Your task to perform on an android device: What's the weather going to be this weekend? Image 0: 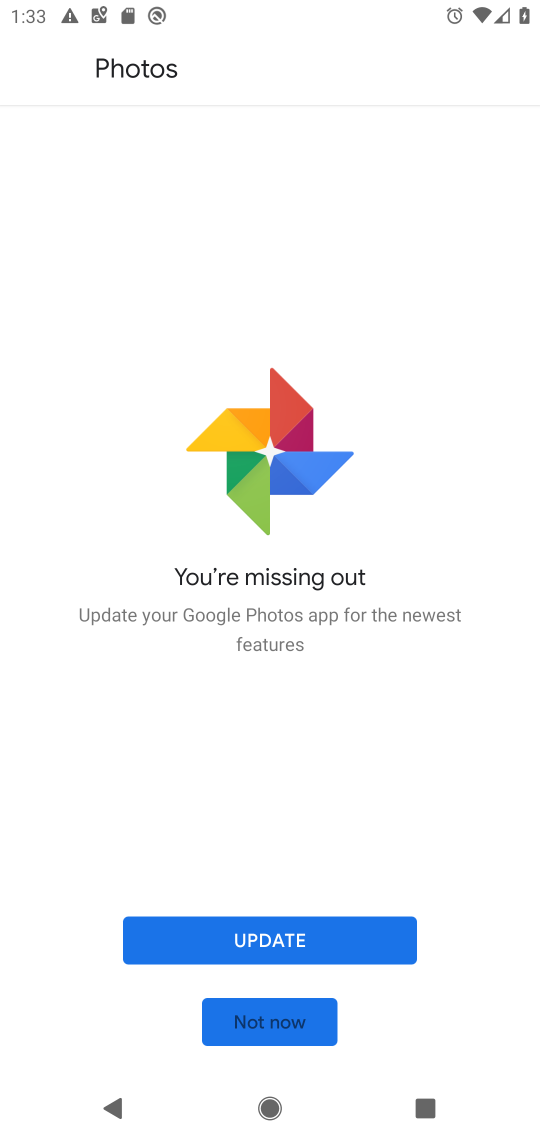
Step 0: press home button
Your task to perform on an android device: What's the weather going to be this weekend? Image 1: 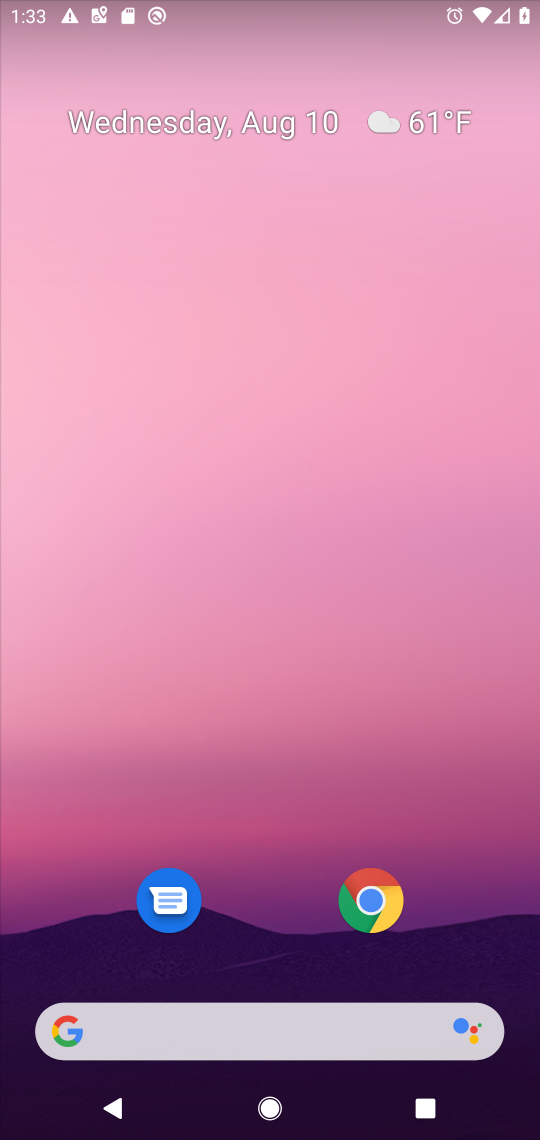
Step 1: drag from (279, 886) to (369, 11)
Your task to perform on an android device: What's the weather going to be this weekend? Image 2: 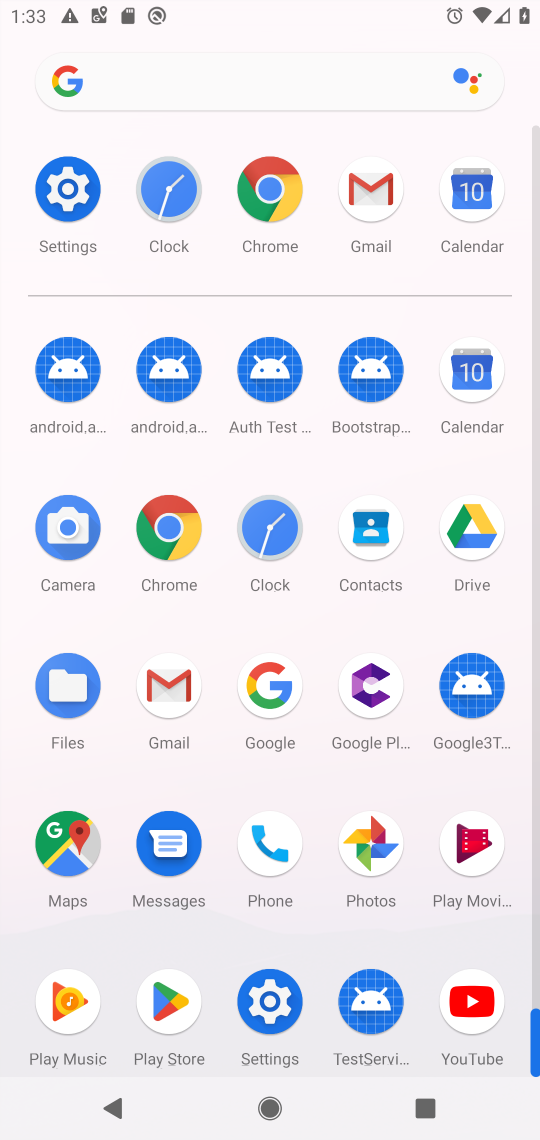
Step 2: click (476, 190)
Your task to perform on an android device: What's the weather going to be this weekend? Image 3: 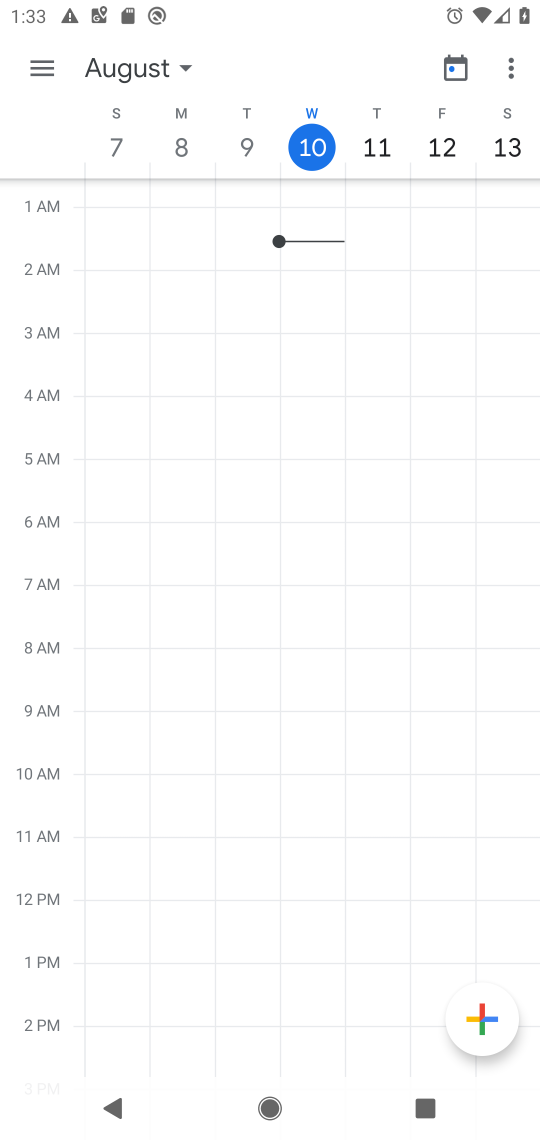
Step 3: press home button
Your task to perform on an android device: What's the weather going to be this weekend? Image 4: 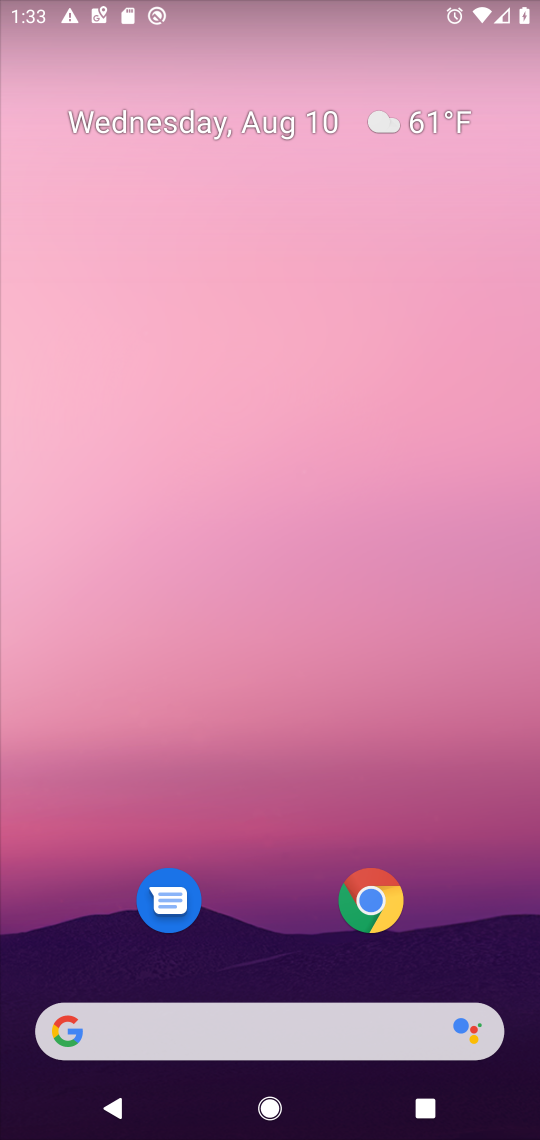
Step 4: click (247, 1036)
Your task to perform on an android device: What's the weather going to be this weekend? Image 5: 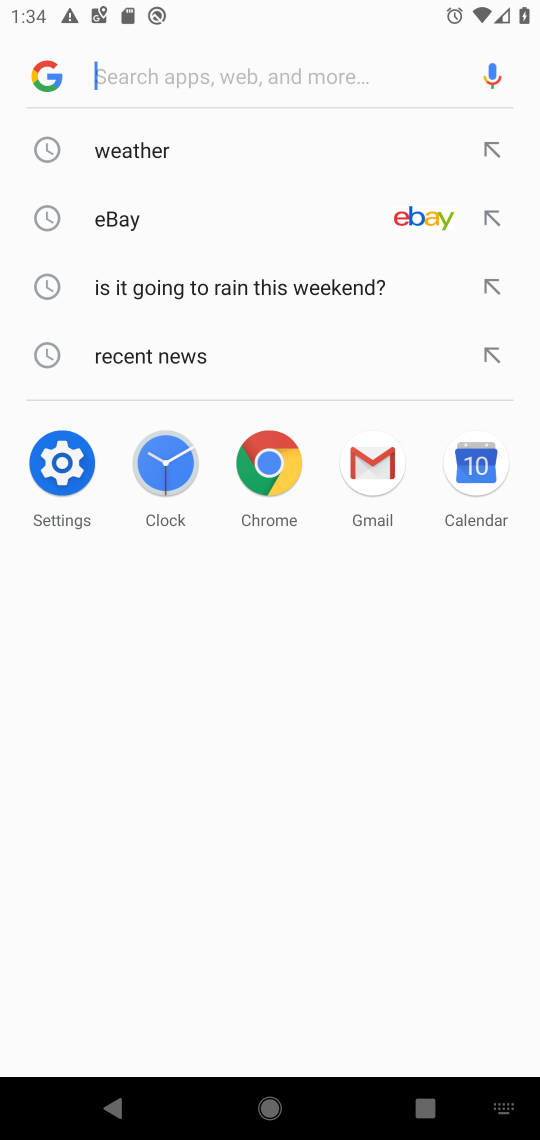
Step 5: click (156, 147)
Your task to perform on an android device: What's the weather going to be this weekend? Image 6: 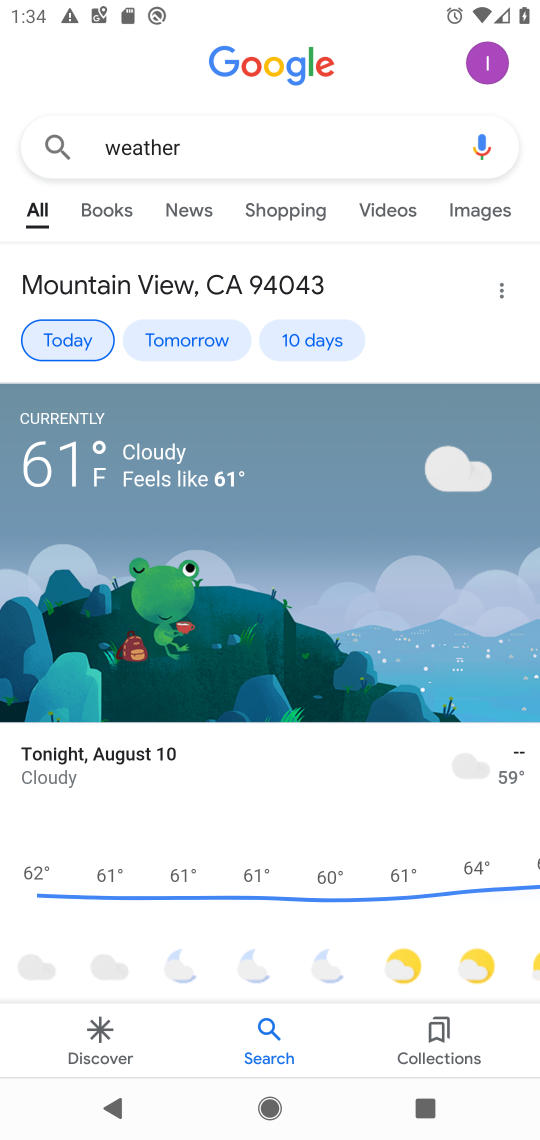
Step 6: click (315, 337)
Your task to perform on an android device: What's the weather going to be this weekend? Image 7: 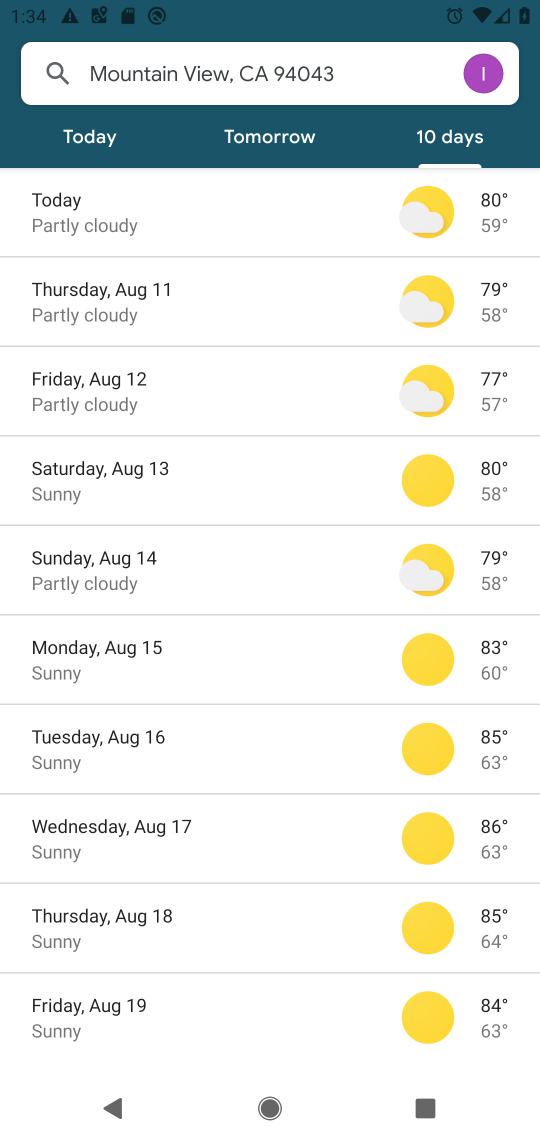
Step 7: click (249, 481)
Your task to perform on an android device: What's the weather going to be this weekend? Image 8: 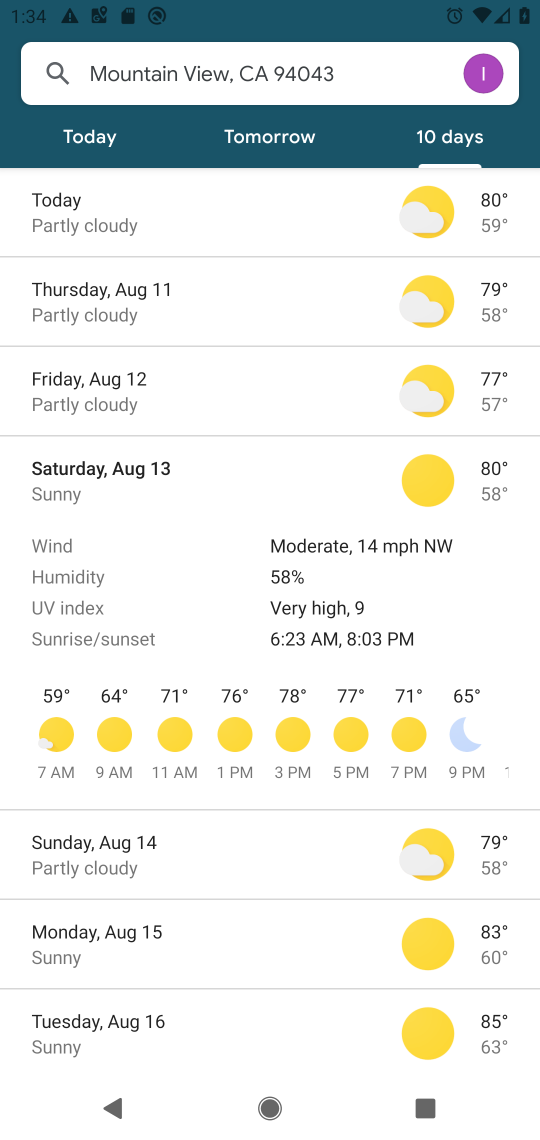
Step 8: task complete